Your task to perform on an android device: turn on data saver in the chrome app Image 0: 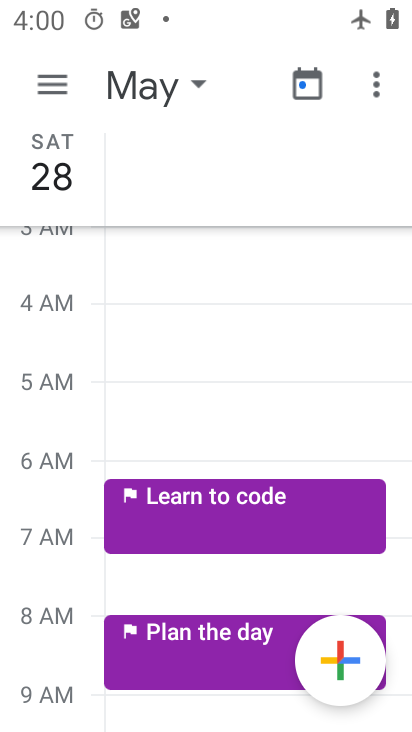
Step 0: press home button
Your task to perform on an android device: turn on data saver in the chrome app Image 1: 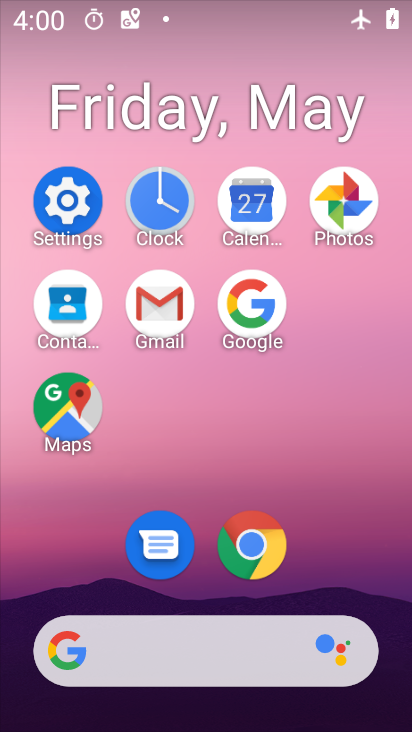
Step 1: click (255, 527)
Your task to perform on an android device: turn on data saver in the chrome app Image 2: 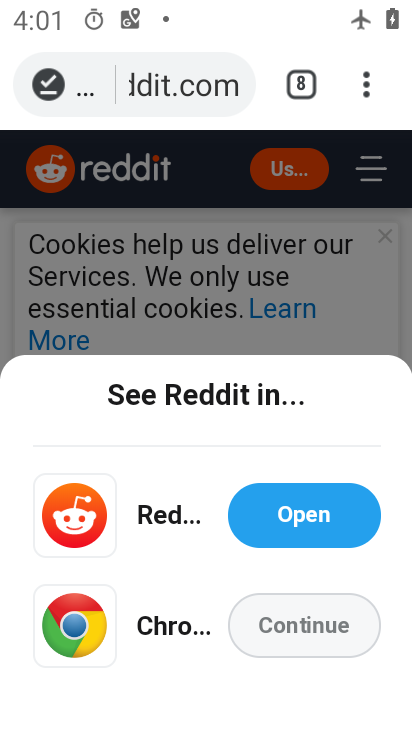
Step 2: click (377, 92)
Your task to perform on an android device: turn on data saver in the chrome app Image 3: 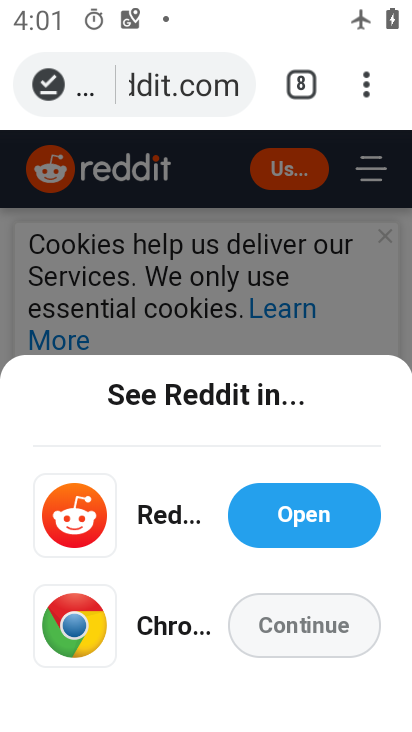
Step 3: click (372, 88)
Your task to perform on an android device: turn on data saver in the chrome app Image 4: 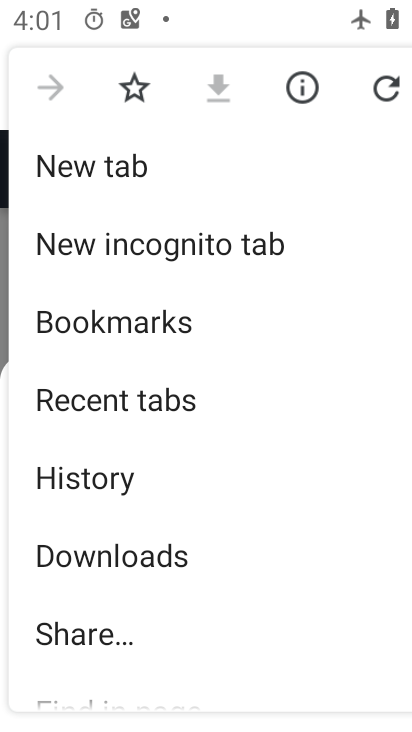
Step 4: drag from (272, 578) to (268, 223)
Your task to perform on an android device: turn on data saver in the chrome app Image 5: 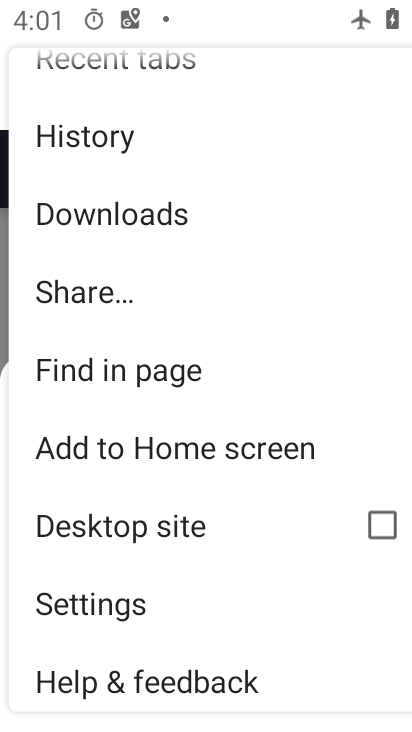
Step 5: click (163, 604)
Your task to perform on an android device: turn on data saver in the chrome app Image 6: 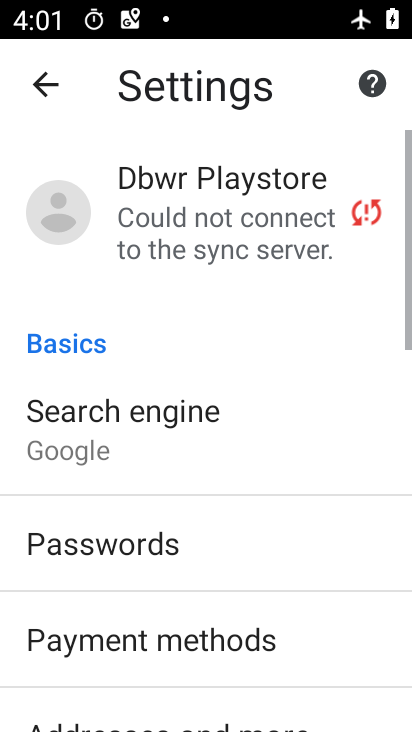
Step 6: drag from (232, 589) to (294, 238)
Your task to perform on an android device: turn on data saver in the chrome app Image 7: 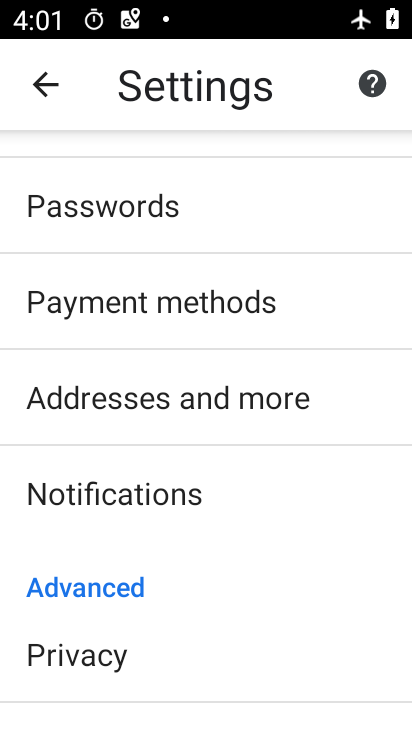
Step 7: drag from (257, 599) to (205, 218)
Your task to perform on an android device: turn on data saver in the chrome app Image 8: 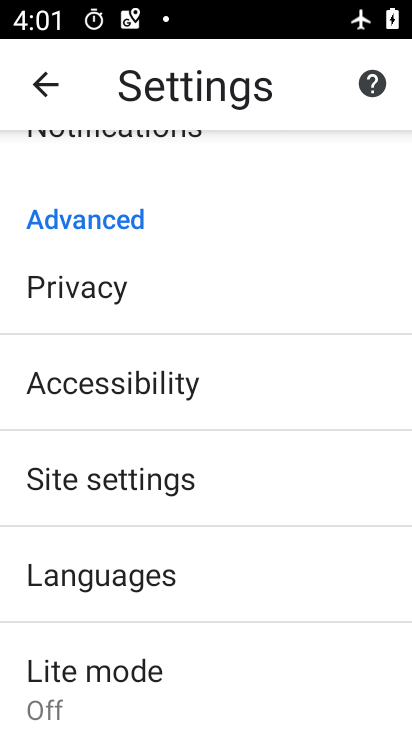
Step 8: click (223, 664)
Your task to perform on an android device: turn on data saver in the chrome app Image 9: 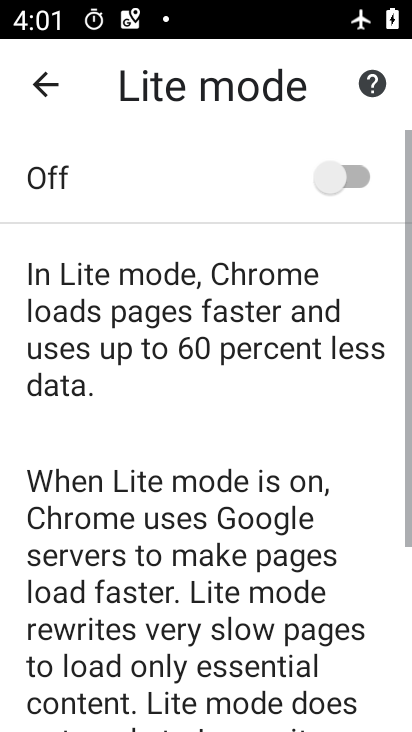
Step 9: click (323, 162)
Your task to perform on an android device: turn on data saver in the chrome app Image 10: 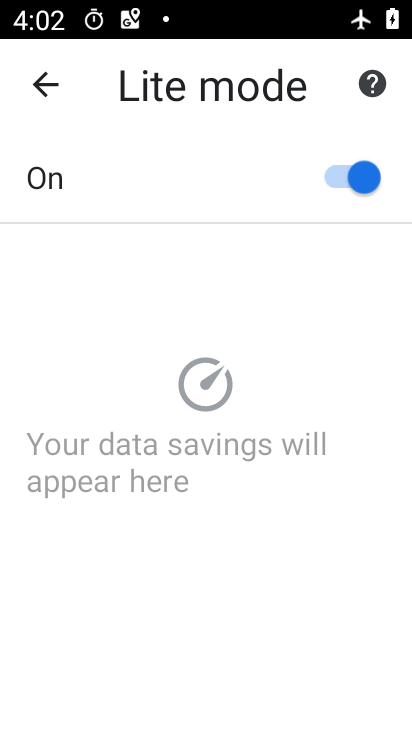
Step 10: task complete